Your task to perform on an android device: add a contact in the contacts app Image 0: 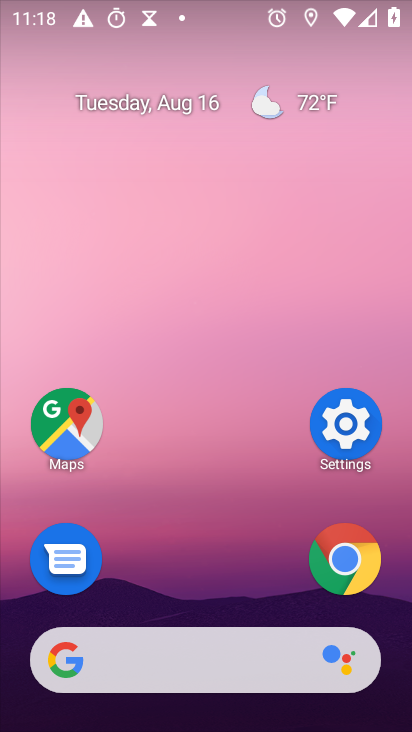
Step 0: press home button
Your task to perform on an android device: add a contact in the contacts app Image 1: 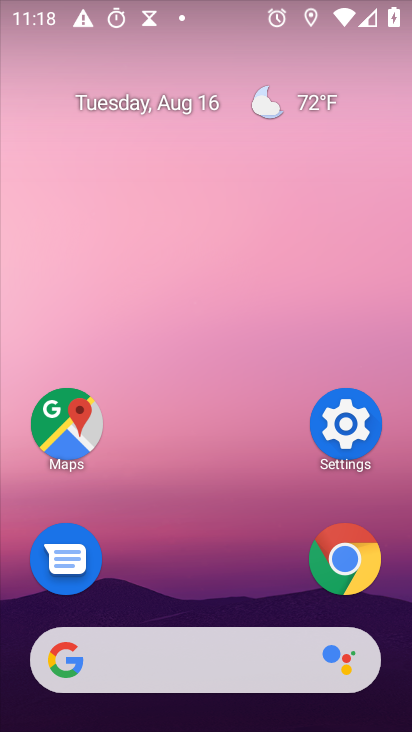
Step 1: drag from (179, 625) to (296, 146)
Your task to perform on an android device: add a contact in the contacts app Image 2: 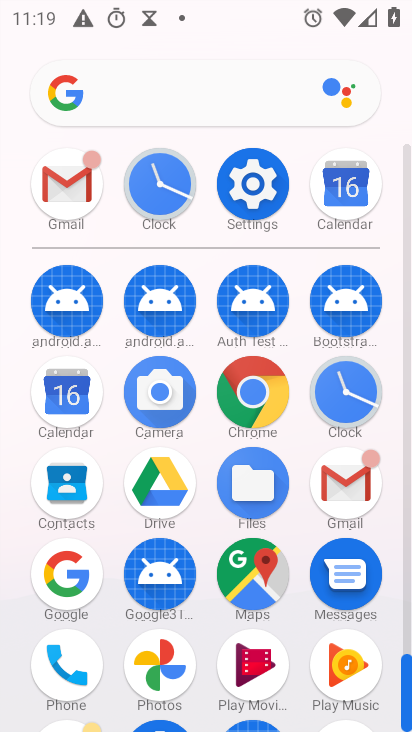
Step 2: click (56, 489)
Your task to perform on an android device: add a contact in the contacts app Image 3: 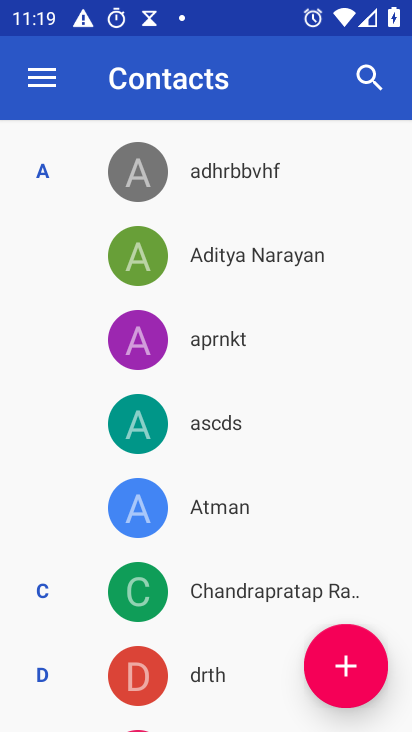
Step 3: click (347, 676)
Your task to perform on an android device: add a contact in the contacts app Image 4: 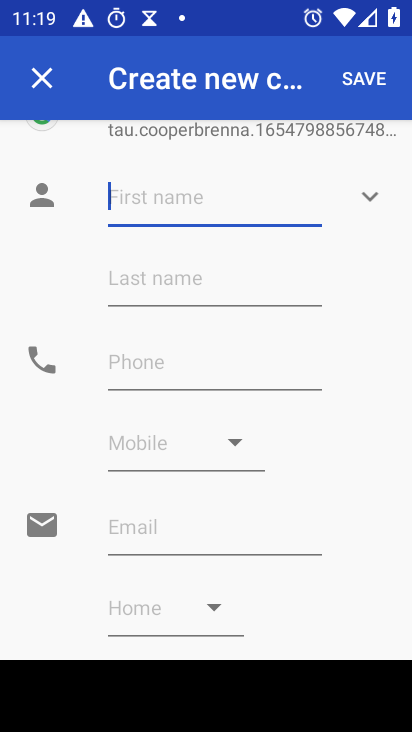
Step 4: type "byrrrddffgg"
Your task to perform on an android device: add a contact in the contacts app Image 5: 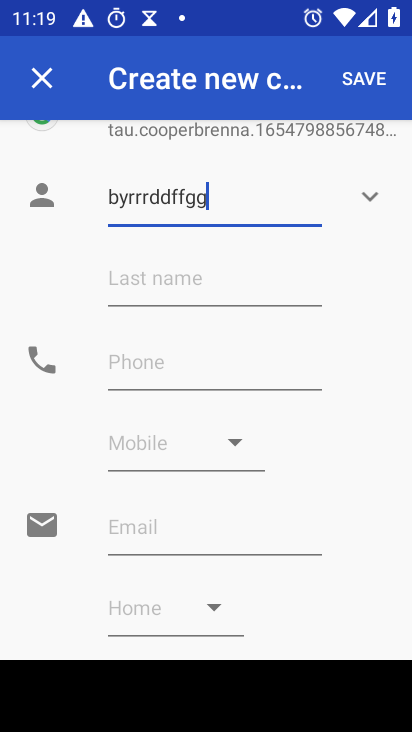
Step 5: click (121, 355)
Your task to perform on an android device: add a contact in the contacts app Image 6: 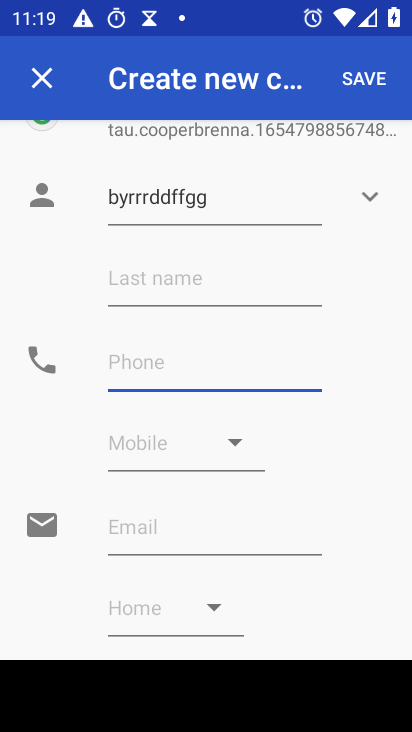
Step 6: type "365544777655"
Your task to perform on an android device: add a contact in the contacts app Image 7: 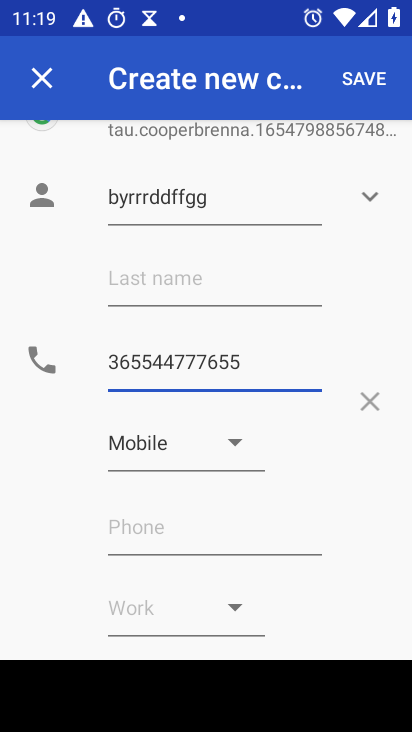
Step 7: click (353, 72)
Your task to perform on an android device: add a contact in the contacts app Image 8: 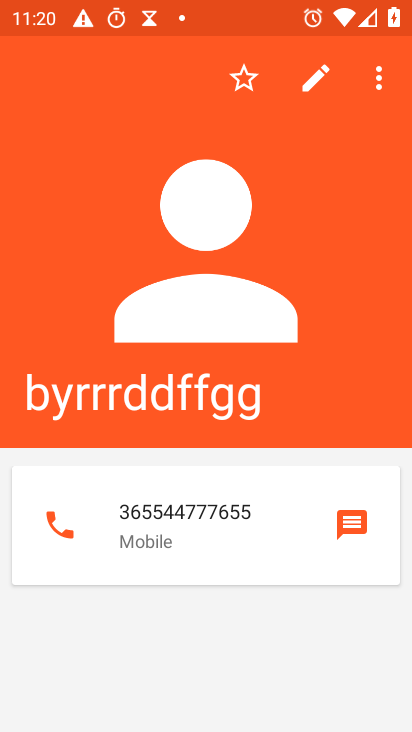
Step 8: task complete